Your task to perform on an android device: Open Google Chrome and open the bookmarks view Image 0: 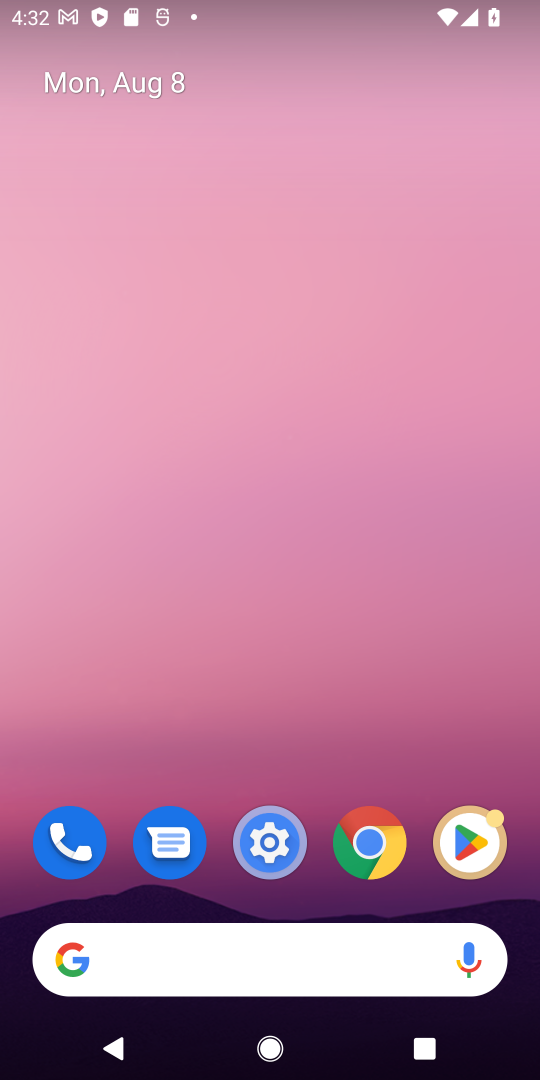
Step 0: click (376, 838)
Your task to perform on an android device: Open Google Chrome and open the bookmarks view Image 1: 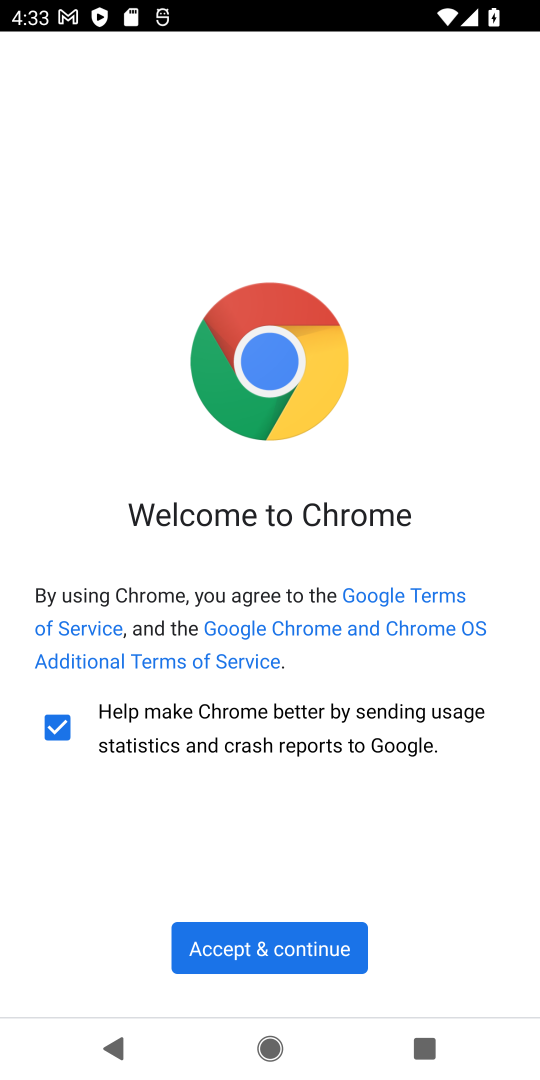
Step 1: click (305, 935)
Your task to perform on an android device: Open Google Chrome and open the bookmarks view Image 2: 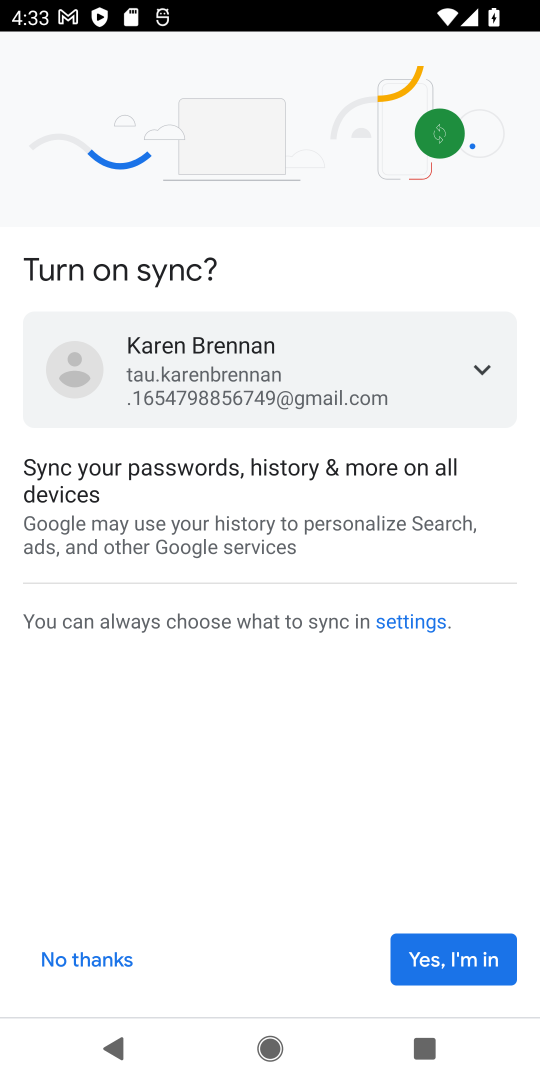
Step 2: click (438, 954)
Your task to perform on an android device: Open Google Chrome and open the bookmarks view Image 3: 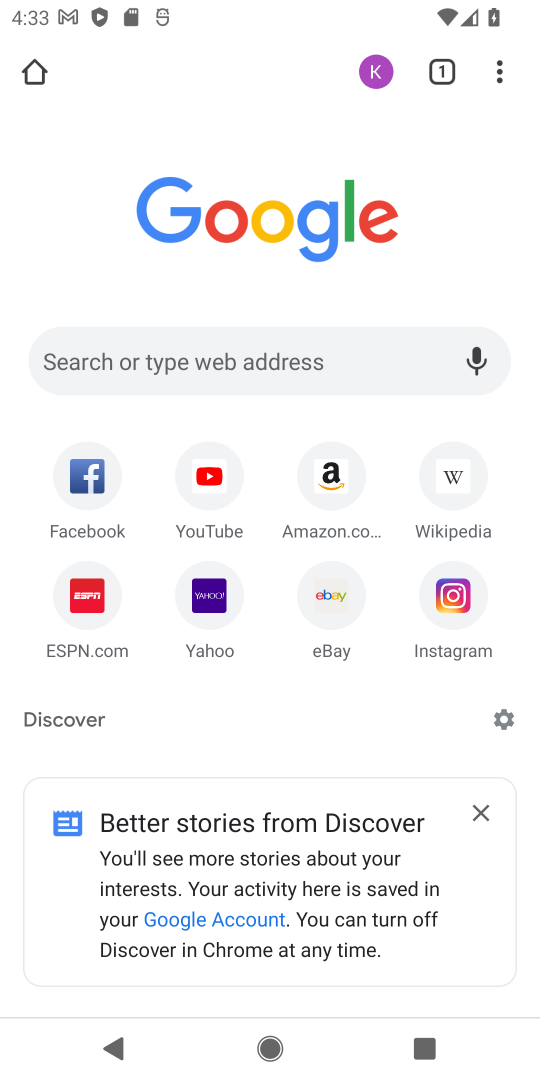
Step 3: click (509, 79)
Your task to perform on an android device: Open Google Chrome and open the bookmarks view Image 4: 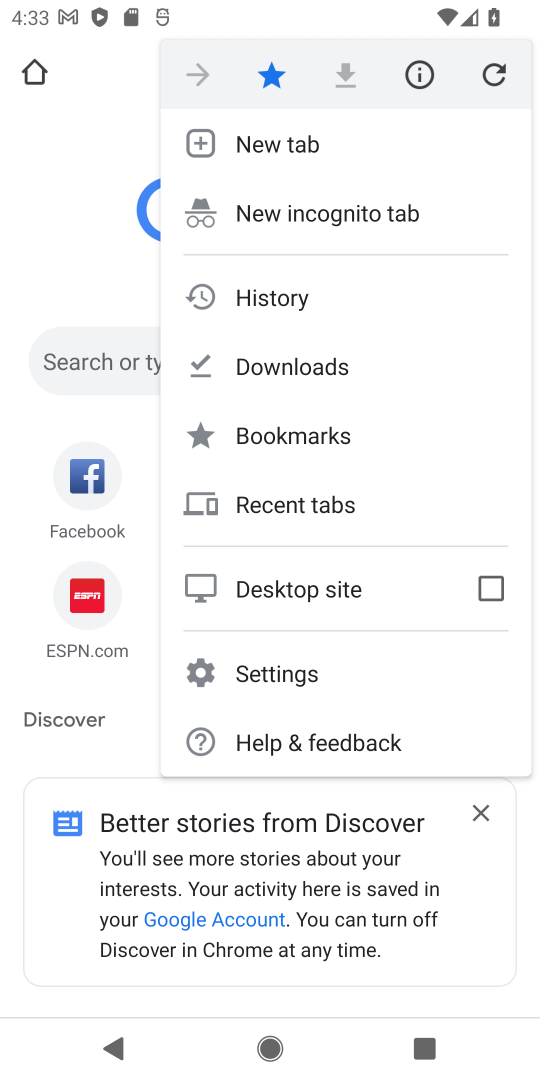
Step 4: click (308, 433)
Your task to perform on an android device: Open Google Chrome and open the bookmarks view Image 5: 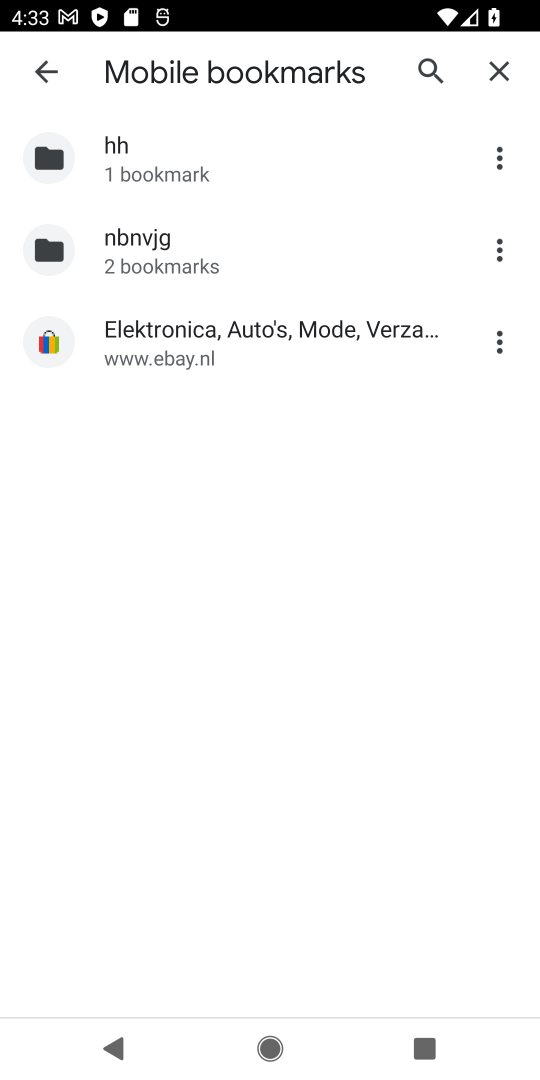
Step 5: task complete